Your task to perform on an android device: open app "Upside-Cash back on gas & food" (install if not already installed), go to login, and select forgot password Image 0: 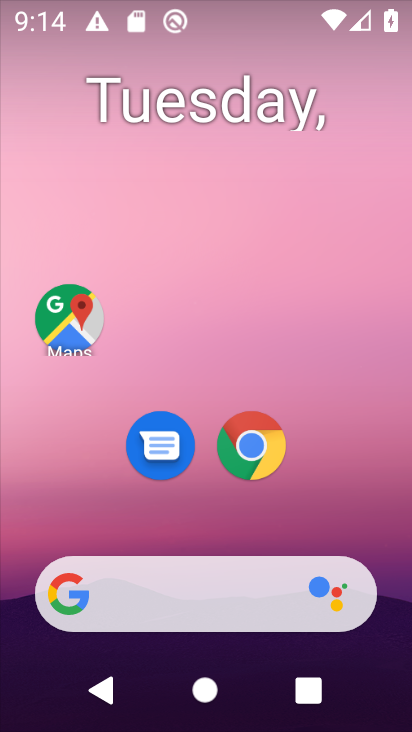
Step 0: click (201, 176)
Your task to perform on an android device: open app "Upside-Cash back on gas & food" (install if not already installed), go to login, and select forgot password Image 1: 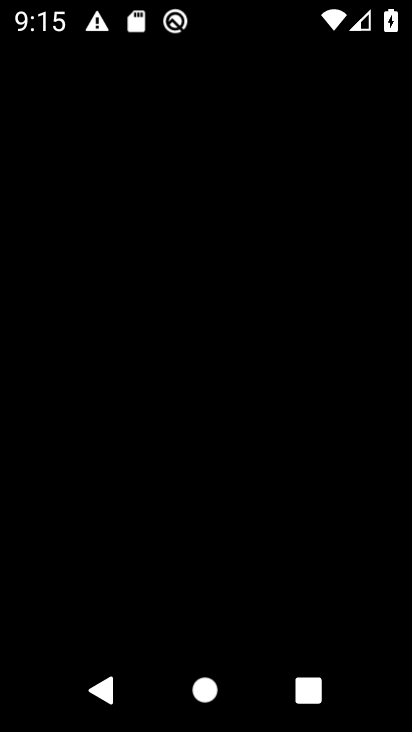
Step 1: press home button
Your task to perform on an android device: open app "Upside-Cash back on gas & food" (install if not already installed), go to login, and select forgot password Image 2: 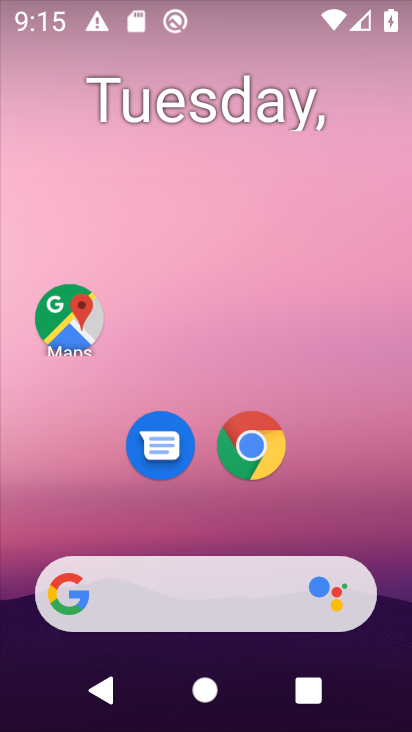
Step 2: drag from (181, 505) to (164, 183)
Your task to perform on an android device: open app "Upside-Cash back on gas & food" (install if not already installed), go to login, and select forgot password Image 3: 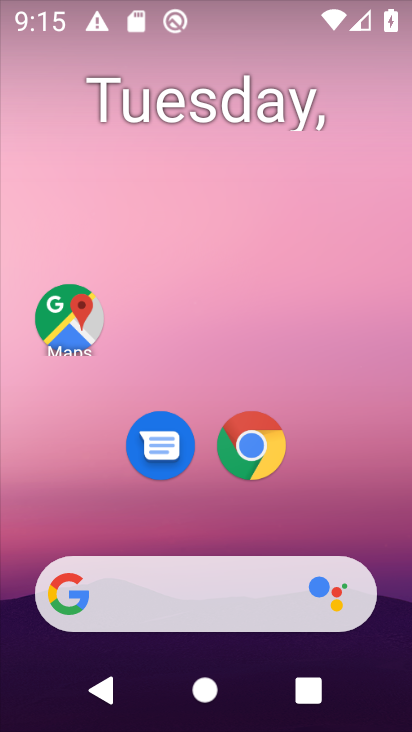
Step 3: drag from (297, 491) to (302, 91)
Your task to perform on an android device: open app "Upside-Cash back on gas & food" (install if not already installed), go to login, and select forgot password Image 4: 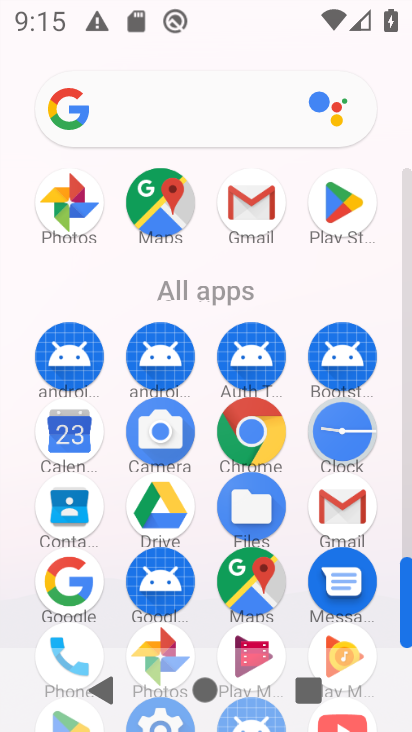
Step 4: click (337, 180)
Your task to perform on an android device: open app "Upside-Cash back on gas & food" (install if not already installed), go to login, and select forgot password Image 5: 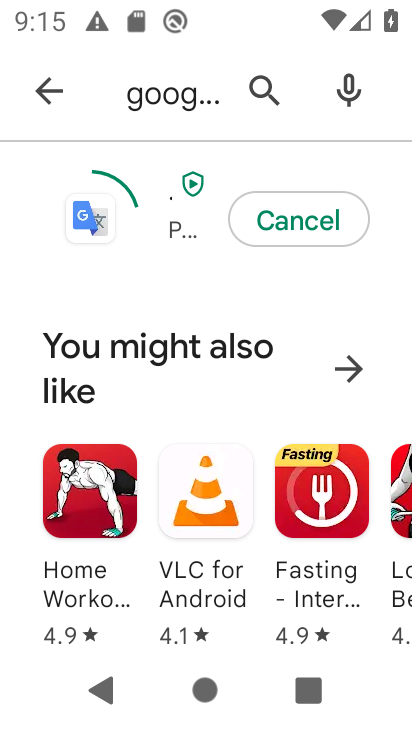
Step 5: click (43, 87)
Your task to perform on an android device: open app "Upside-Cash back on gas & food" (install if not already installed), go to login, and select forgot password Image 6: 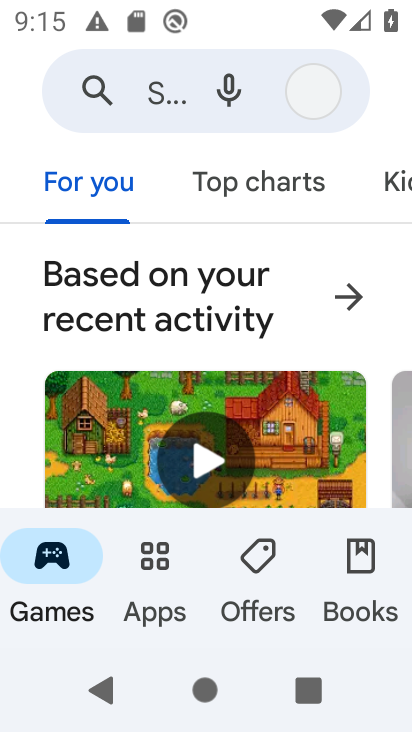
Step 6: click (184, 81)
Your task to perform on an android device: open app "Upside-Cash back on gas & food" (install if not already installed), go to login, and select forgot password Image 7: 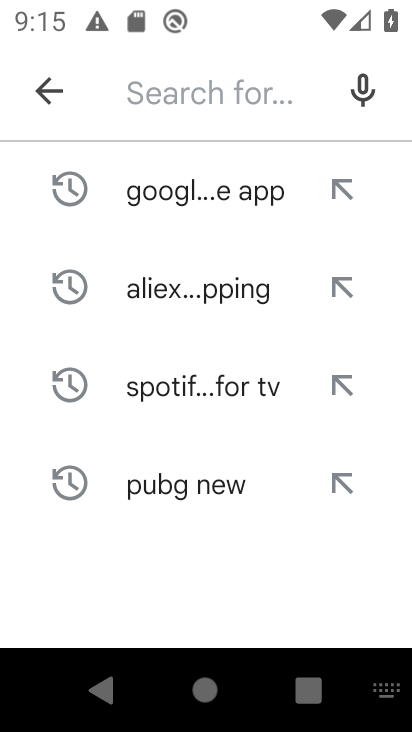
Step 7: type "Upside-Cash back on gas & food "
Your task to perform on an android device: open app "Upside-Cash back on gas & food" (install if not already installed), go to login, and select forgot password Image 8: 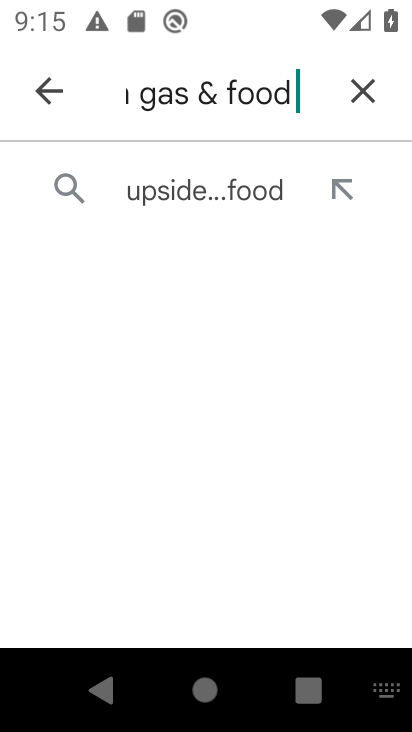
Step 8: click (153, 191)
Your task to perform on an android device: open app "Upside-Cash back on gas & food" (install if not already installed), go to login, and select forgot password Image 9: 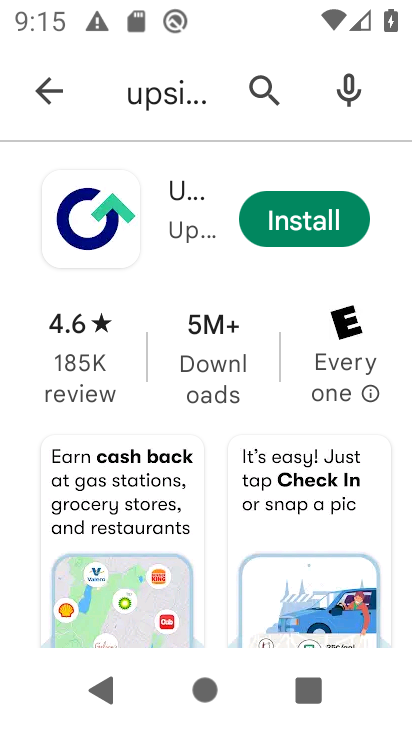
Step 9: click (297, 210)
Your task to perform on an android device: open app "Upside-Cash back on gas & food" (install if not already installed), go to login, and select forgot password Image 10: 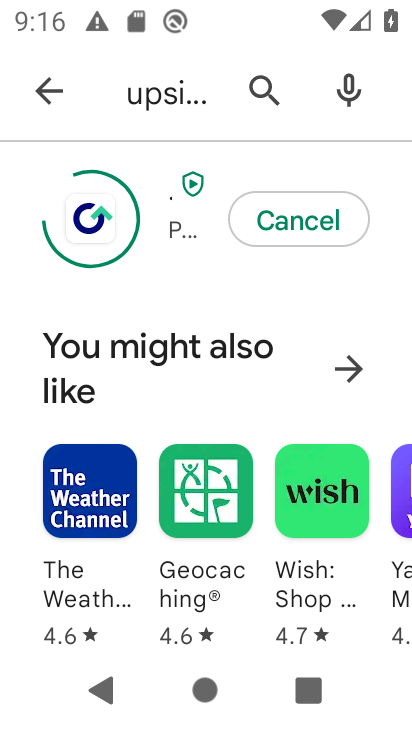
Step 10: task complete